Your task to perform on an android device: see tabs open on other devices in the chrome app Image 0: 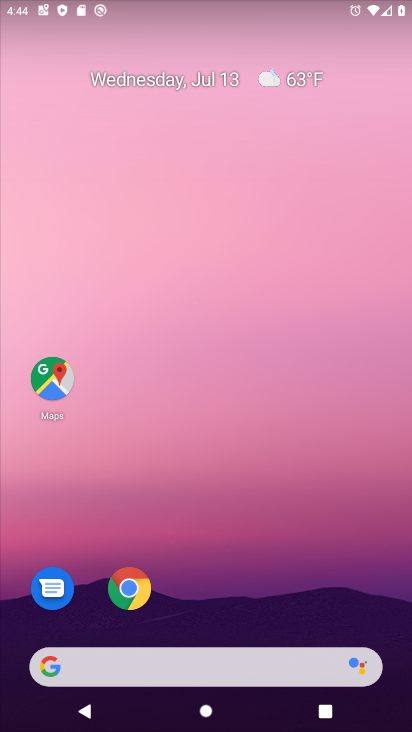
Step 0: click (129, 592)
Your task to perform on an android device: see tabs open on other devices in the chrome app Image 1: 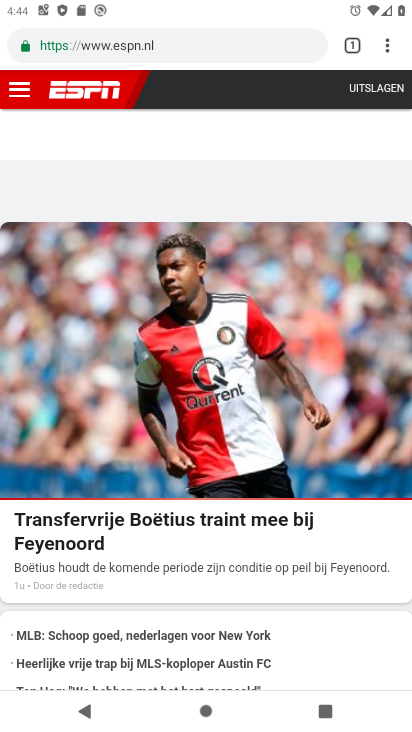
Step 1: click (388, 45)
Your task to perform on an android device: see tabs open on other devices in the chrome app Image 2: 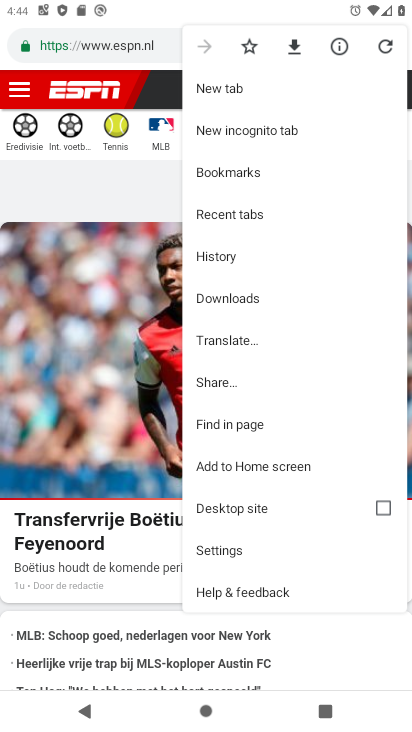
Step 2: click (248, 211)
Your task to perform on an android device: see tabs open on other devices in the chrome app Image 3: 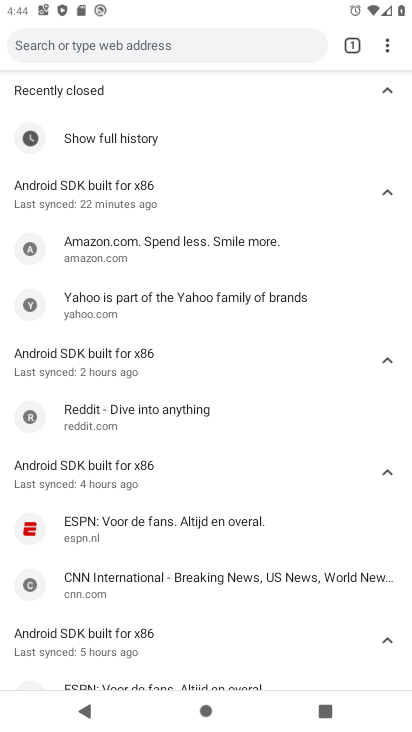
Step 3: task complete